Your task to perform on an android device: Go to Yahoo.com Image 0: 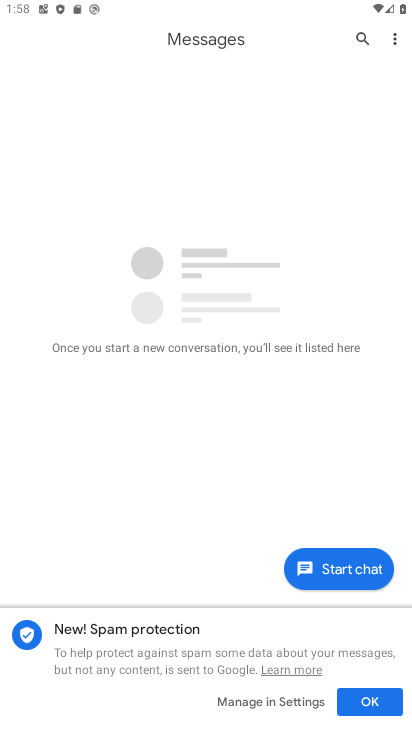
Step 0: press home button
Your task to perform on an android device: Go to Yahoo.com Image 1: 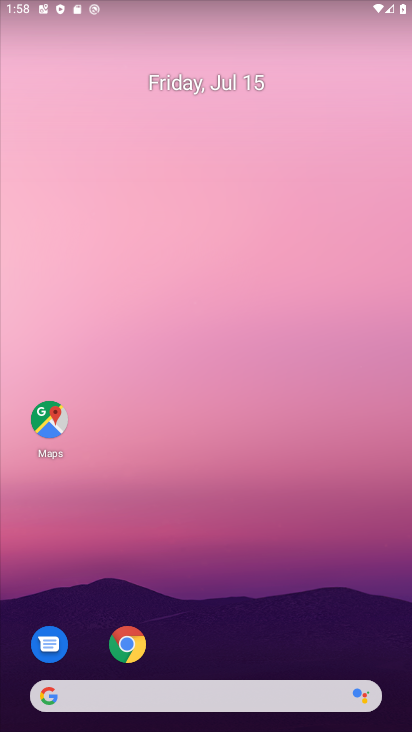
Step 1: click (142, 698)
Your task to perform on an android device: Go to Yahoo.com Image 2: 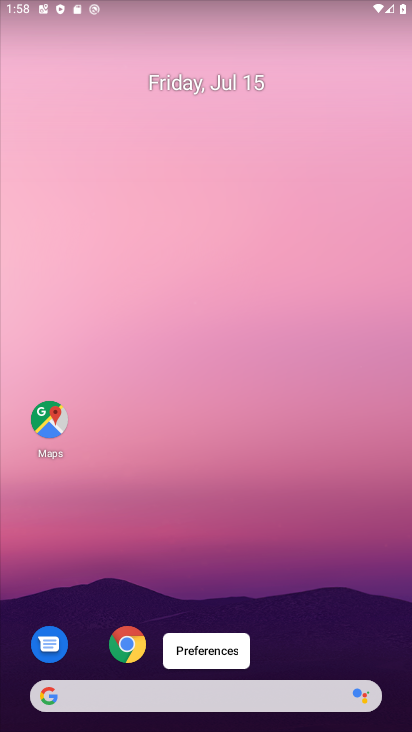
Step 2: click (72, 696)
Your task to perform on an android device: Go to Yahoo.com Image 3: 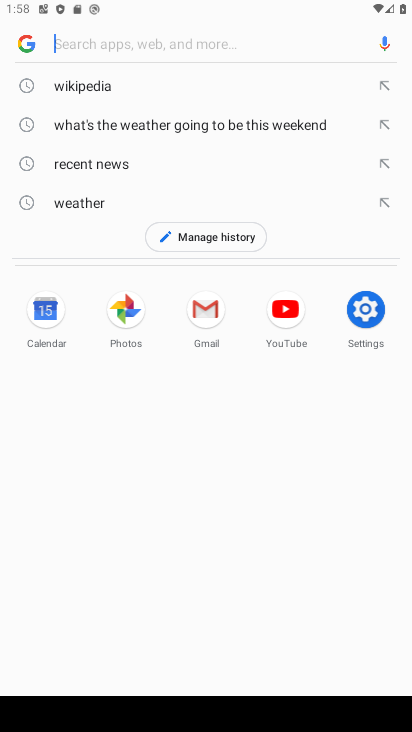
Step 3: type "Yahoo.com"
Your task to perform on an android device: Go to Yahoo.com Image 4: 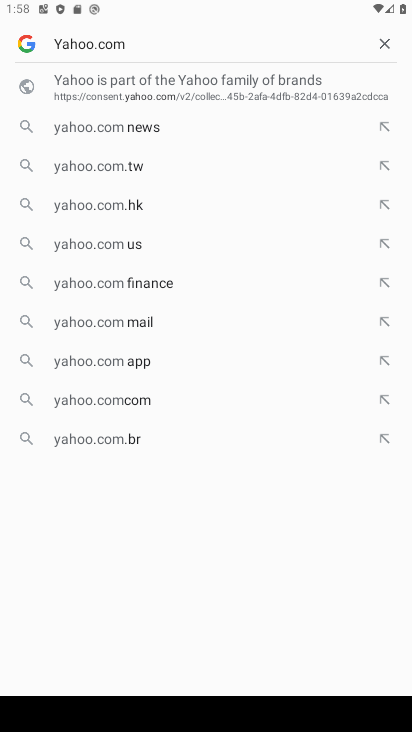
Step 4: type ""
Your task to perform on an android device: Go to Yahoo.com Image 5: 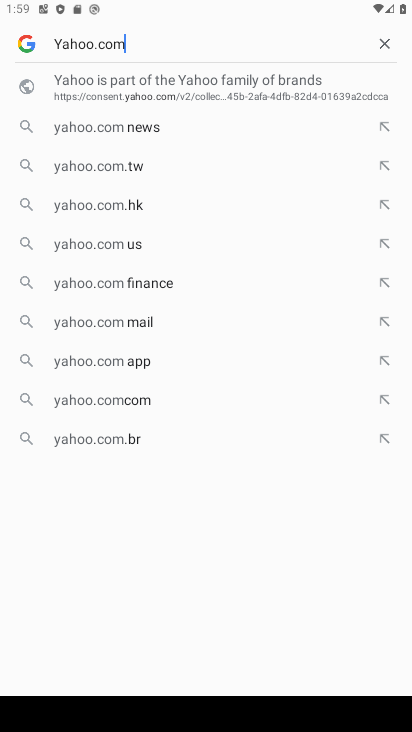
Step 5: type ""
Your task to perform on an android device: Go to Yahoo.com Image 6: 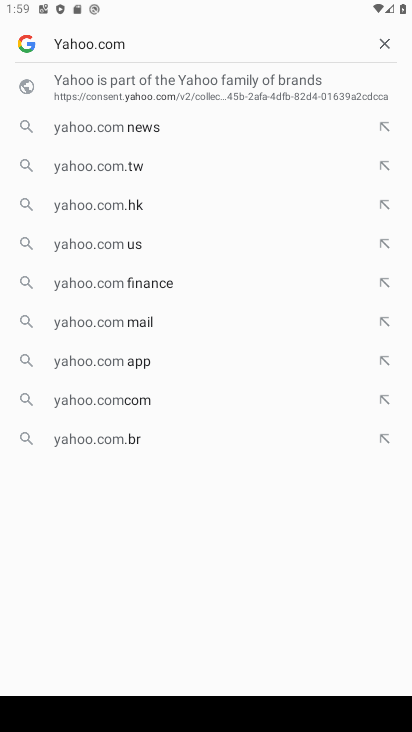
Step 6: task complete